Your task to perform on an android device: turn notification dots off Image 0: 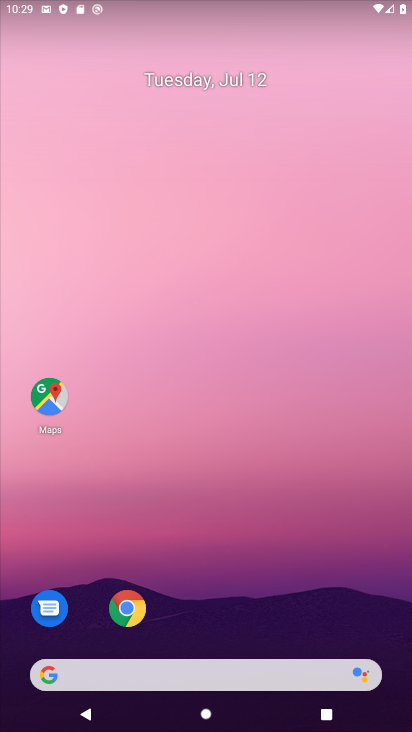
Step 0: drag from (247, 625) to (288, 1)
Your task to perform on an android device: turn notification dots off Image 1: 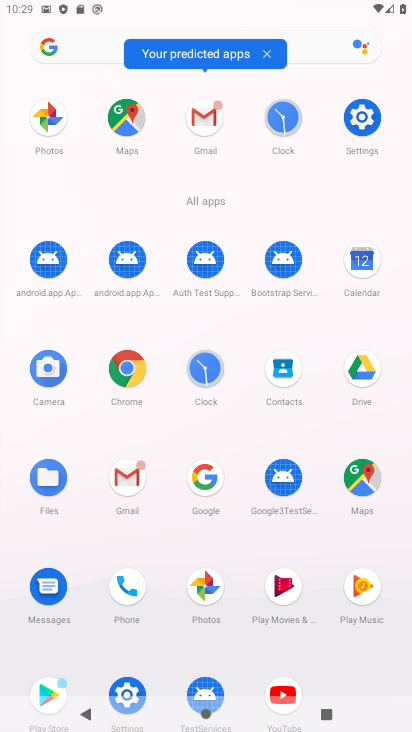
Step 1: click (351, 128)
Your task to perform on an android device: turn notification dots off Image 2: 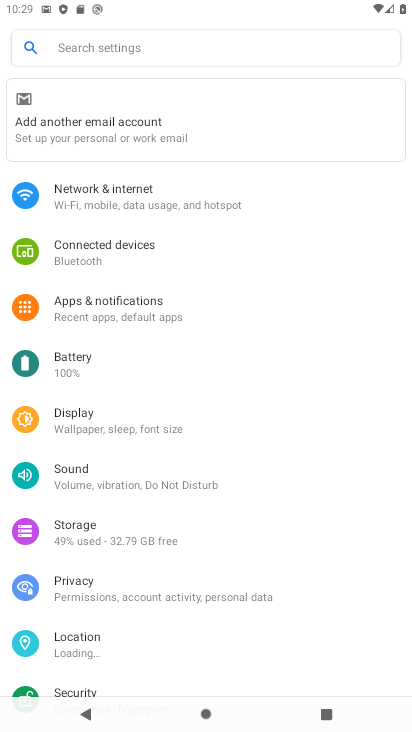
Step 2: click (120, 297)
Your task to perform on an android device: turn notification dots off Image 3: 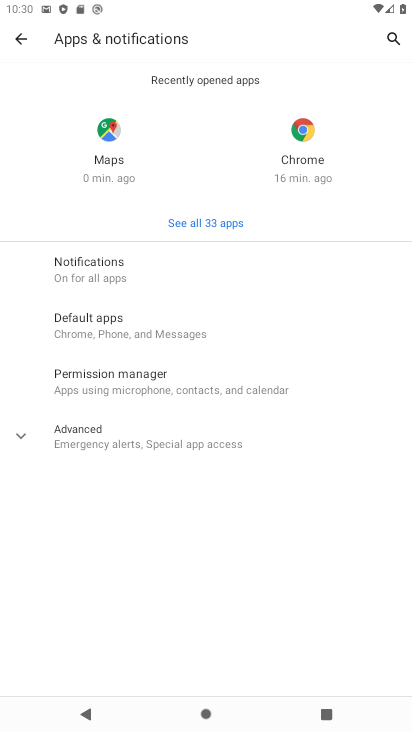
Step 3: click (88, 270)
Your task to perform on an android device: turn notification dots off Image 4: 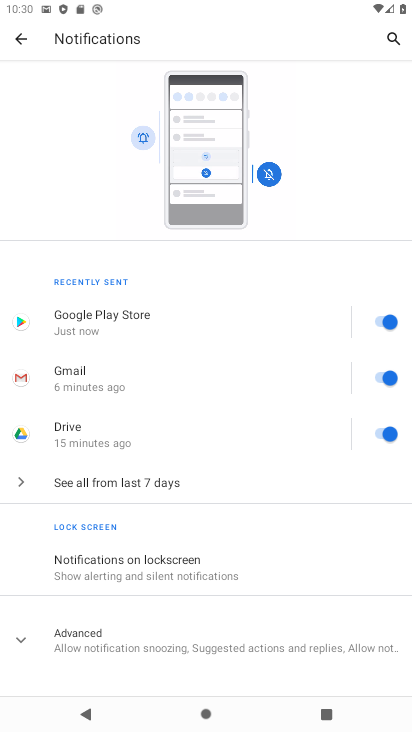
Step 4: click (117, 554)
Your task to perform on an android device: turn notification dots off Image 5: 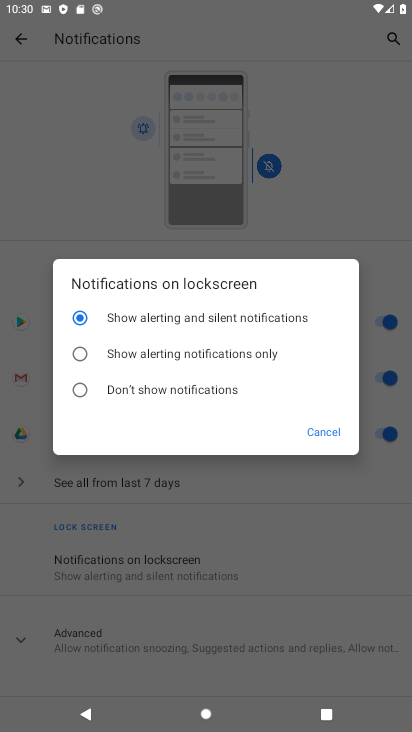
Step 5: click (315, 429)
Your task to perform on an android device: turn notification dots off Image 6: 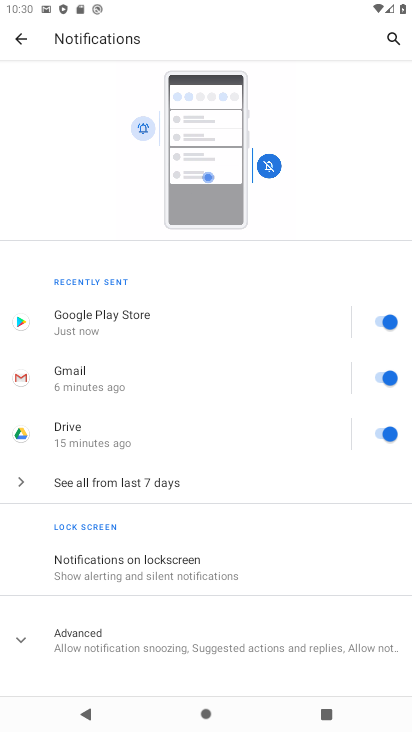
Step 6: click (172, 647)
Your task to perform on an android device: turn notification dots off Image 7: 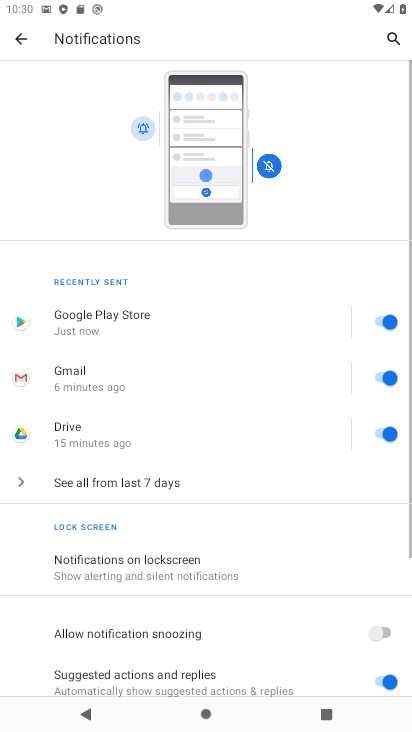
Step 7: drag from (172, 647) to (208, 160)
Your task to perform on an android device: turn notification dots off Image 8: 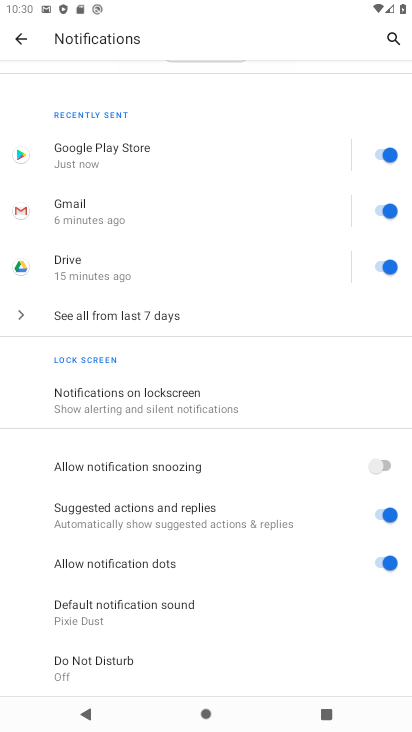
Step 8: click (387, 562)
Your task to perform on an android device: turn notification dots off Image 9: 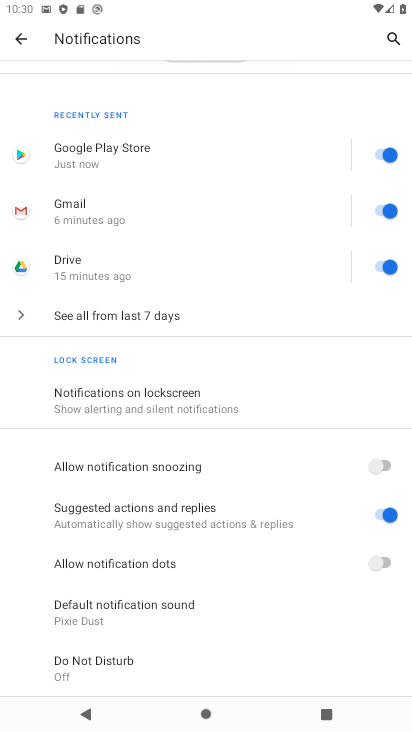
Step 9: task complete